Your task to perform on an android device: Search for sushi restaurants on Maps Image 0: 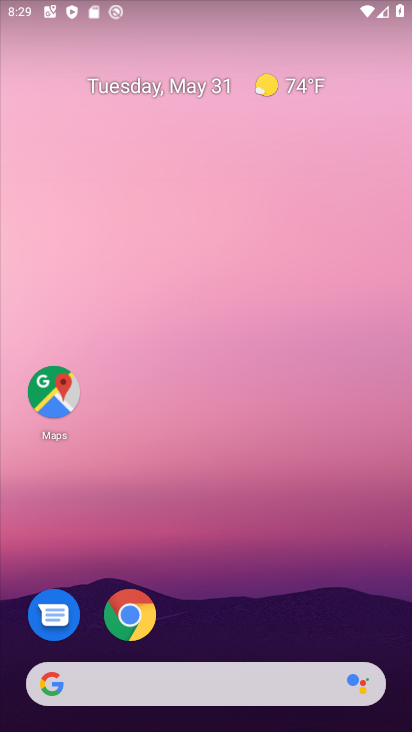
Step 0: click (33, 393)
Your task to perform on an android device: Search for sushi restaurants on Maps Image 1: 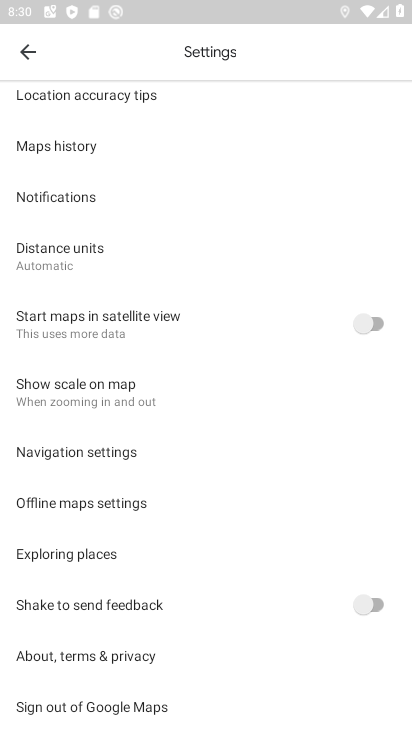
Step 1: click (31, 54)
Your task to perform on an android device: Search for sushi restaurants on Maps Image 2: 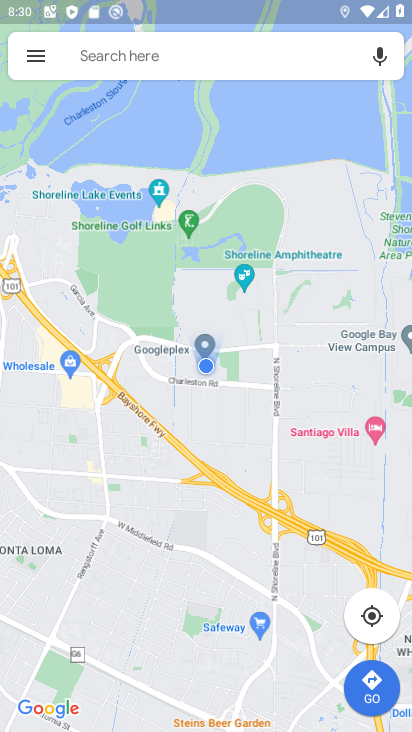
Step 2: click (124, 56)
Your task to perform on an android device: Search for sushi restaurants on Maps Image 3: 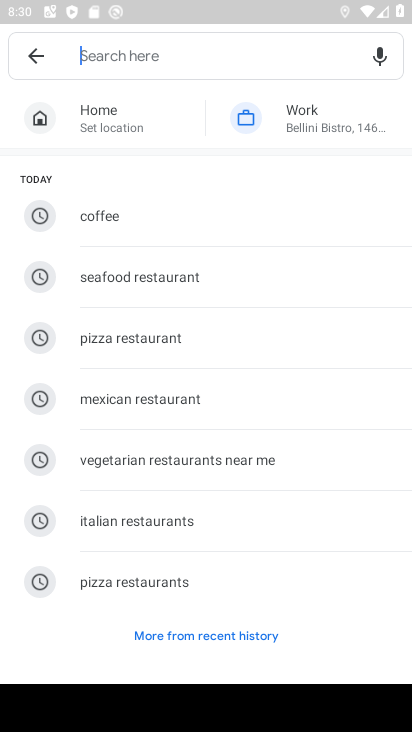
Step 3: type "sushi restaurants"
Your task to perform on an android device: Search for sushi restaurants on Maps Image 4: 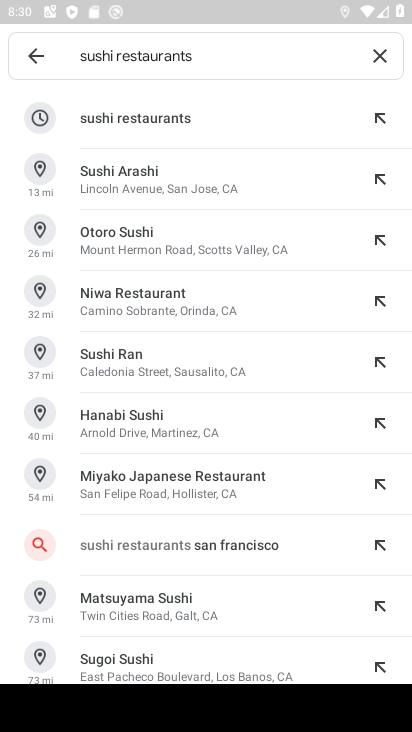
Step 4: click (237, 119)
Your task to perform on an android device: Search for sushi restaurants on Maps Image 5: 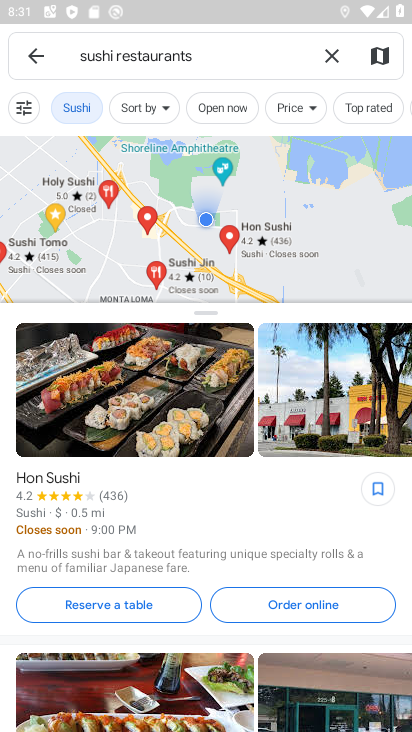
Step 5: task complete